Your task to perform on an android device: see sites visited before in the chrome app Image 0: 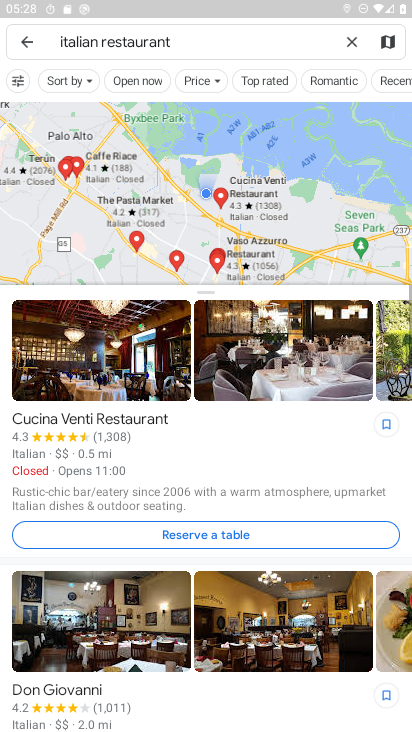
Step 0: press home button
Your task to perform on an android device: see sites visited before in the chrome app Image 1: 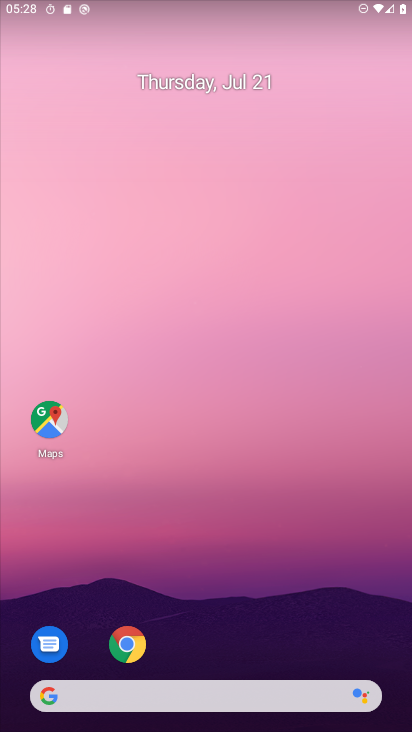
Step 1: click (120, 650)
Your task to perform on an android device: see sites visited before in the chrome app Image 2: 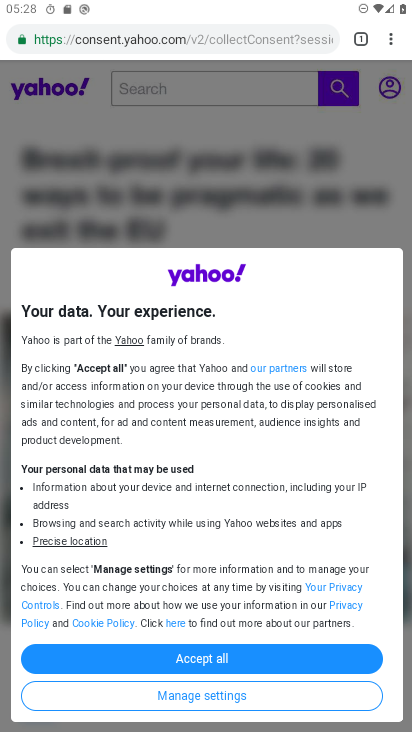
Step 2: click (391, 41)
Your task to perform on an android device: see sites visited before in the chrome app Image 3: 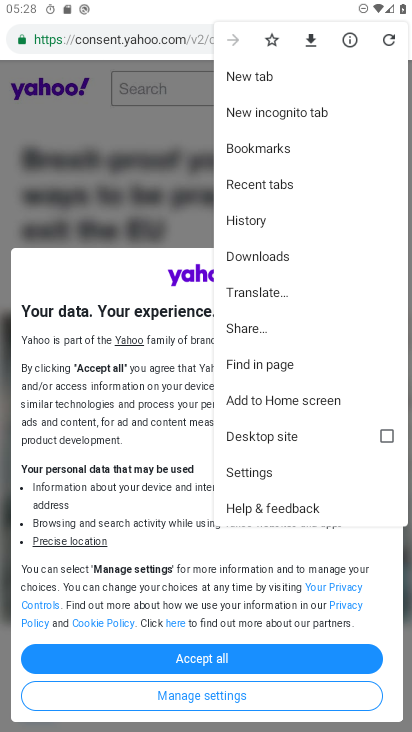
Step 3: click (251, 224)
Your task to perform on an android device: see sites visited before in the chrome app Image 4: 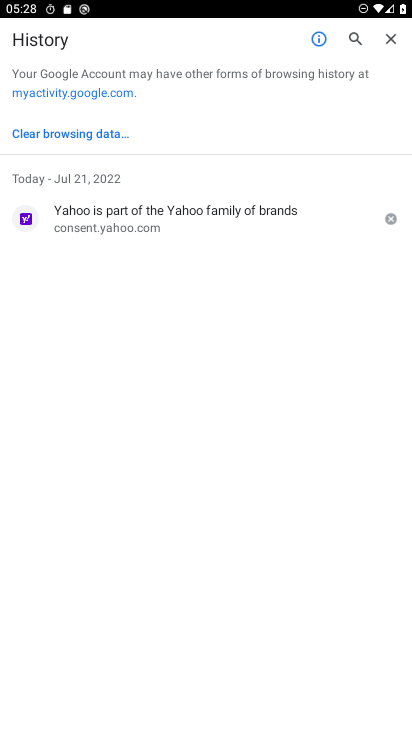
Step 4: task complete